Your task to perform on an android device: Show me productivity apps on the Play Store Image 0: 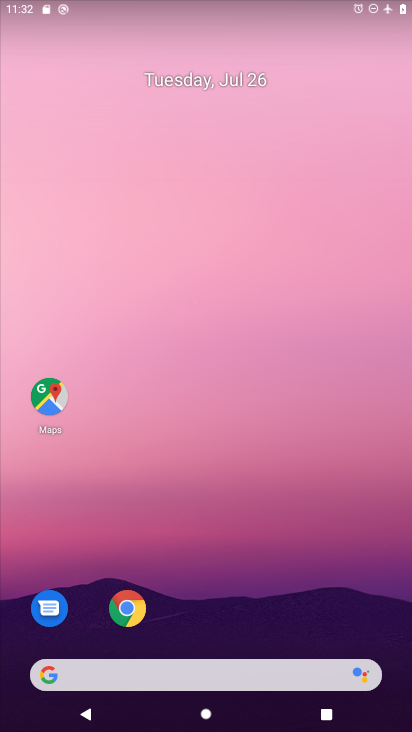
Step 0: drag from (257, 581) to (207, 73)
Your task to perform on an android device: Show me productivity apps on the Play Store Image 1: 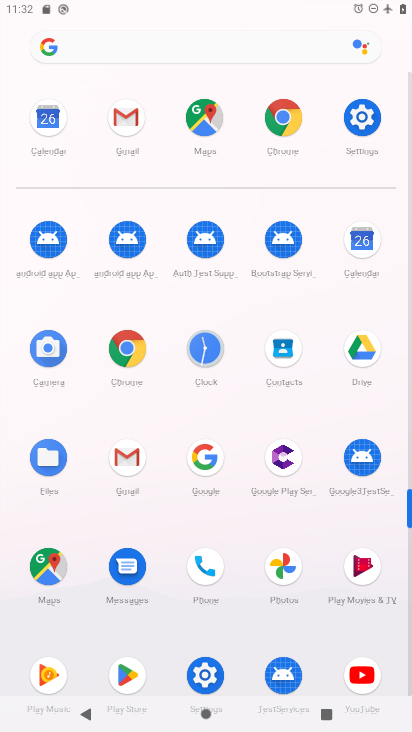
Step 1: drag from (327, 539) to (333, 148)
Your task to perform on an android device: Show me productivity apps on the Play Store Image 2: 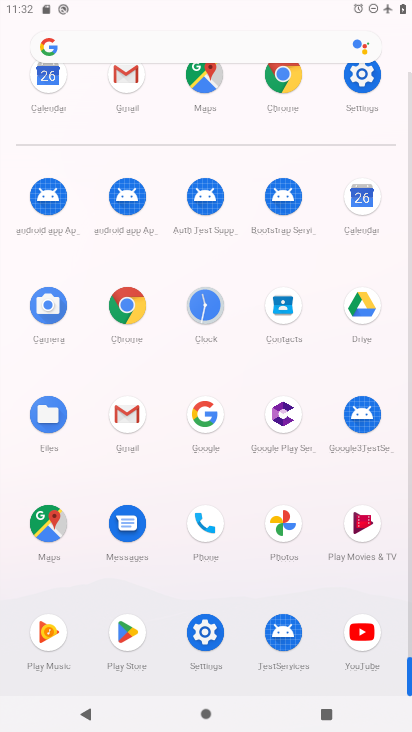
Step 2: click (118, 630)
Your task to perform on an android device: Show me productivity apps on the Play Store Image 3: 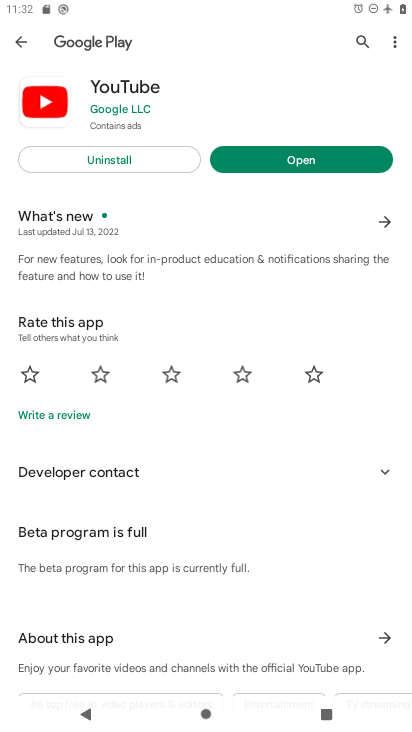
Step 3: click (22, 38)
Your task to perform on an android device: Show me productivity apps on the Play Store Image 4: 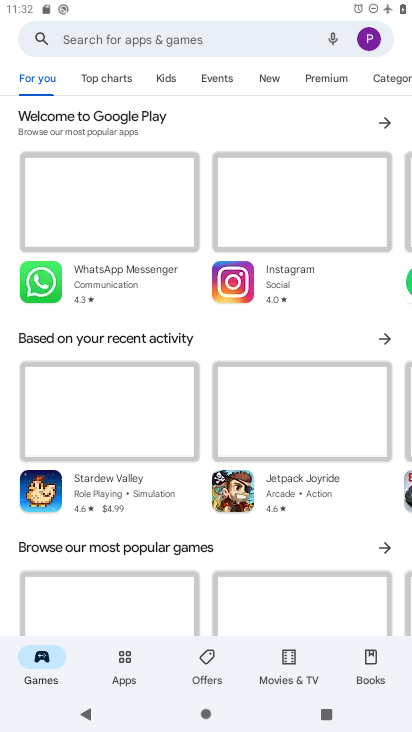
Step 4: click (131, 659)
Your task to perform on an android device: Show me productivity apps on the Play Store Image 5: 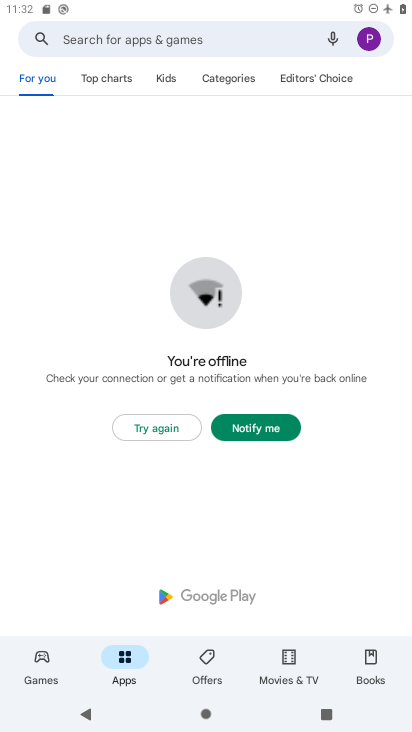
Step 5: task complete